Your task to perform on an android device: turn on bluetooth scan Image 0: 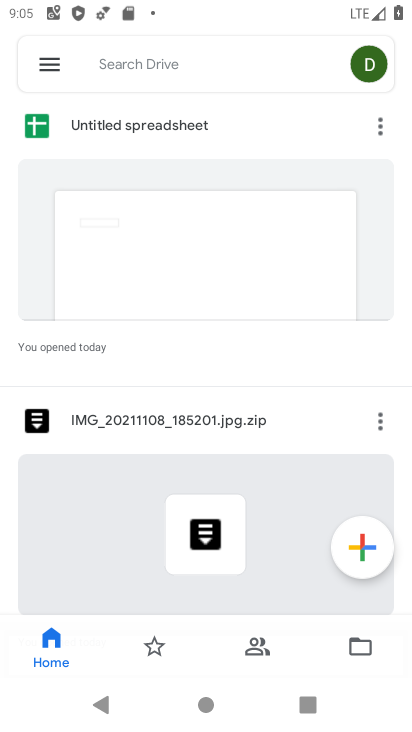
Step 0: press home button
Your task to perform on an android device: turn on bluetooth scan Image 1: 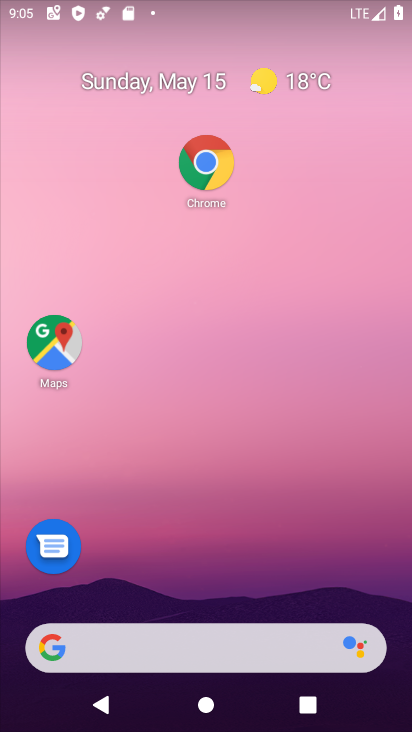
Step 1: drag from (256, 569) to (297, 165)
Your task to perform on an android device: turn on bluetooth scan Image 2: 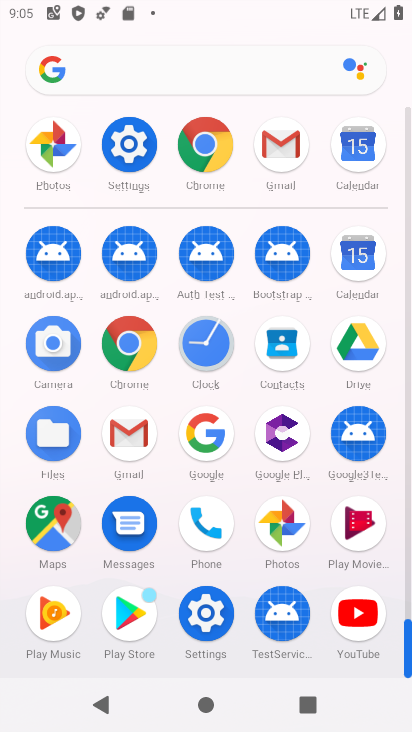
Step 2: click (119, 154)
Your task to perform on an android device: turn on bluetooth scan Image 3: 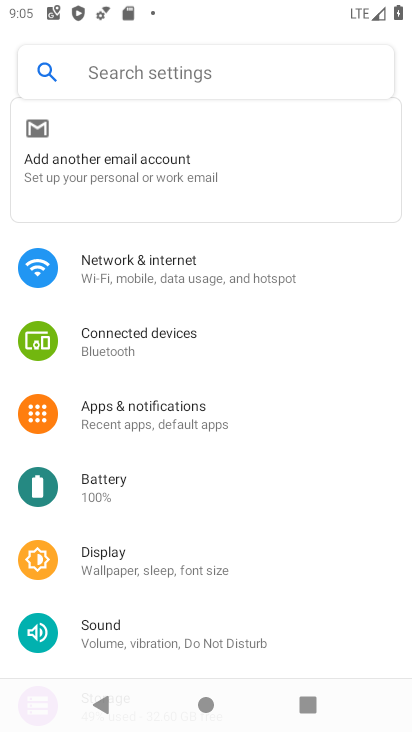
Step 3: click (178, 67)
Your task to perform on an android device: turn on bluetooth scan Image 4: 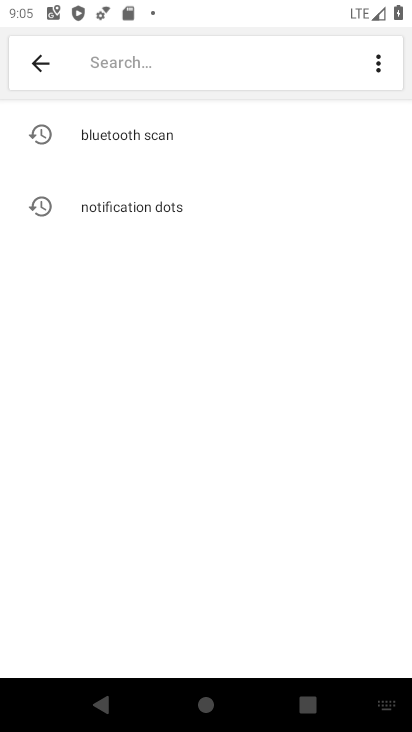
Step 4: click (130, 126)
Your task to perform on an android device: turn on bluetooth scan Image 5: 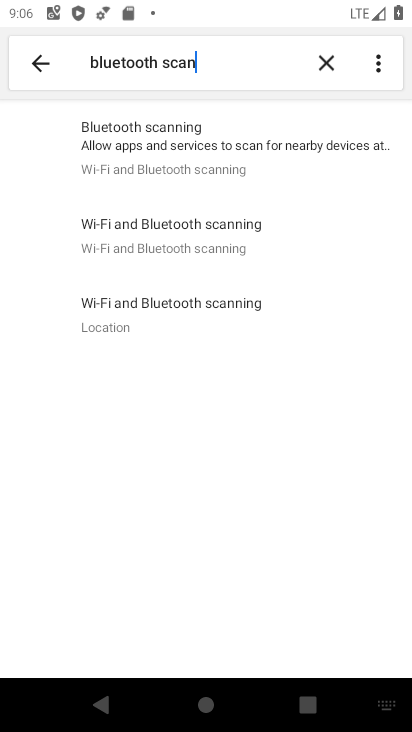
Step 5: click (258, 135)
Your task to perform on an android device: turn on bluetooth scan Image 6: 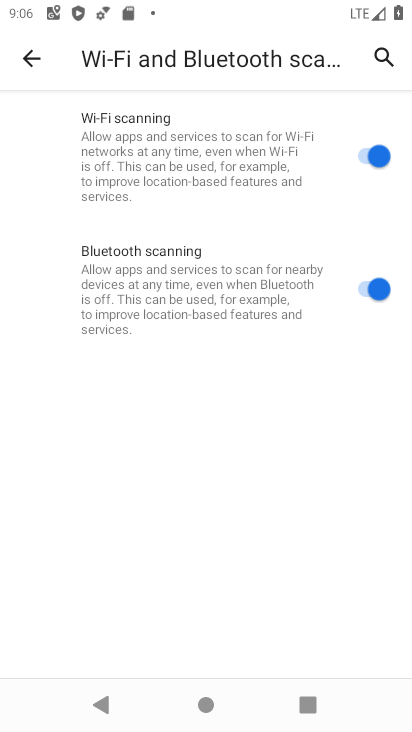
Step 6: task complete